Your task to perform on an android device: Open Google Maps and go to "Timeline" Image 0: 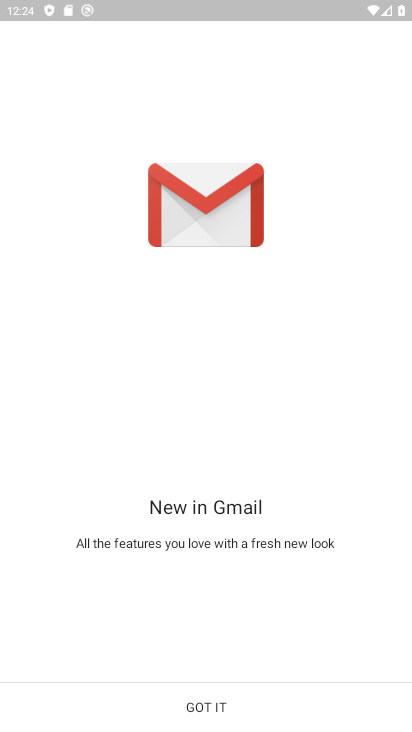
Step 0: press home button
Your task to perform on an android device: Open Google Maps and go to "Timeline" Image 1: 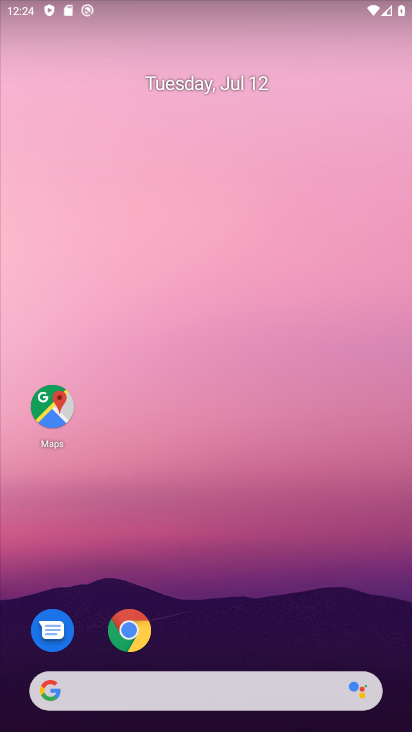
Step 1: click (51, 400)
Your task to perform on an android device: Open Google Maps and go to "Timeline" Image 2: 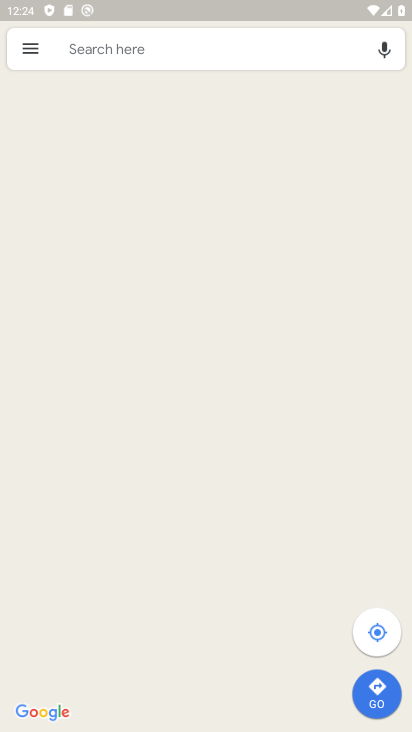
Step 2: click (32, 52)
Your task to perform on an android device: Open Google Maps and go to "Timeline" Image 3: 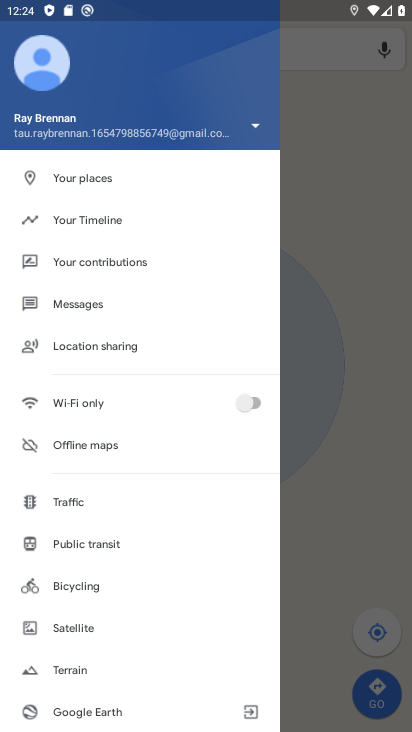
Step 3: click (82, 221)
Your task to perform on an android device: Open Google Maps and go to "Timeline" Image 4: 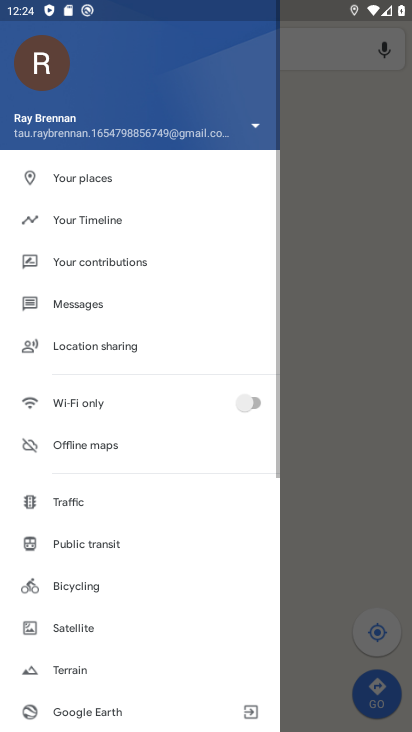
Step 4: click (79, 215)
Your task to perform on an android device: Open Google Maps and go to "Timeline" Image 5: 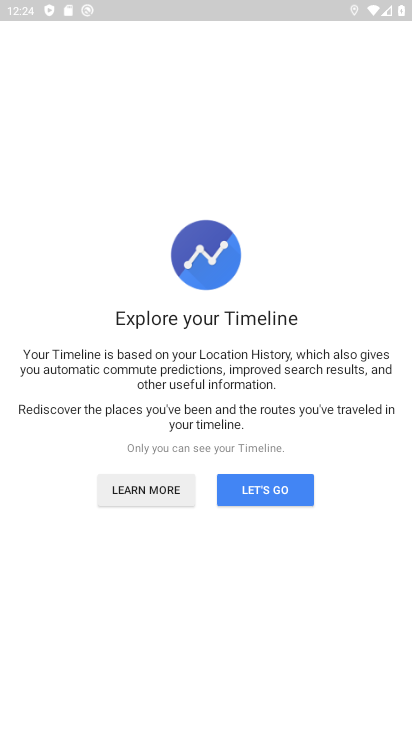
Step 5: click (264, 491)
Your task to perform on an android device: Open Google Maps and go to "Timeline" Image 6: 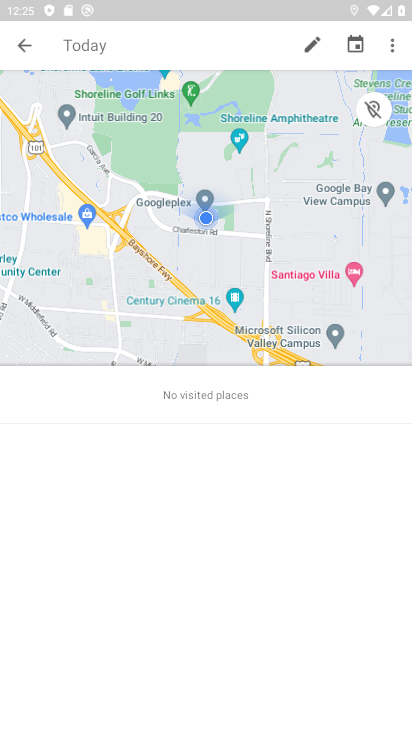
Step 6: task complete